Your task to perform on an android device: create a new album in the google photos Image 0: 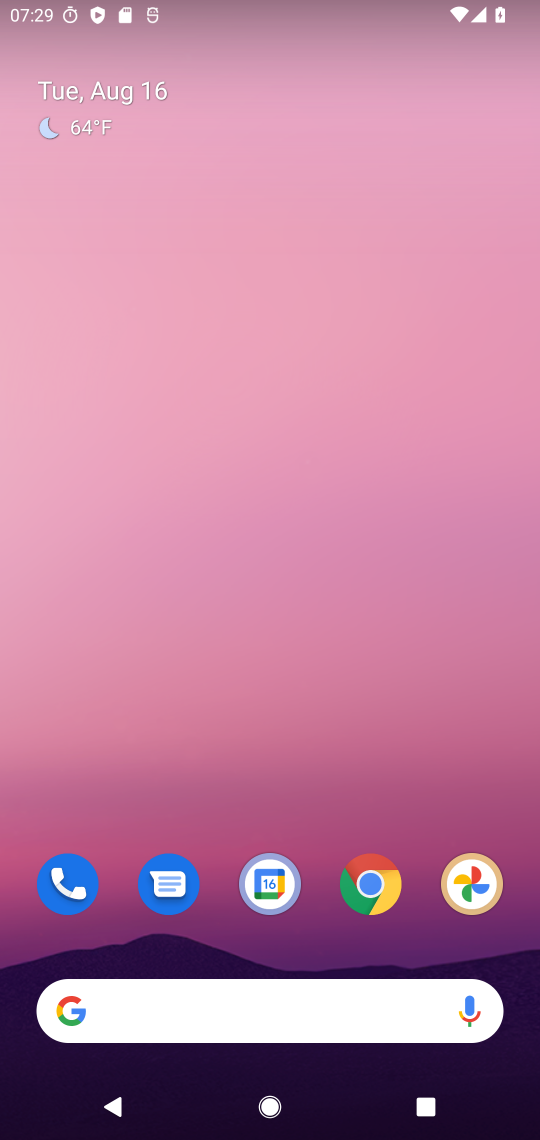
Step 0: press home button
Your task to perform on an android device: create a new album in the google photos Image 1: 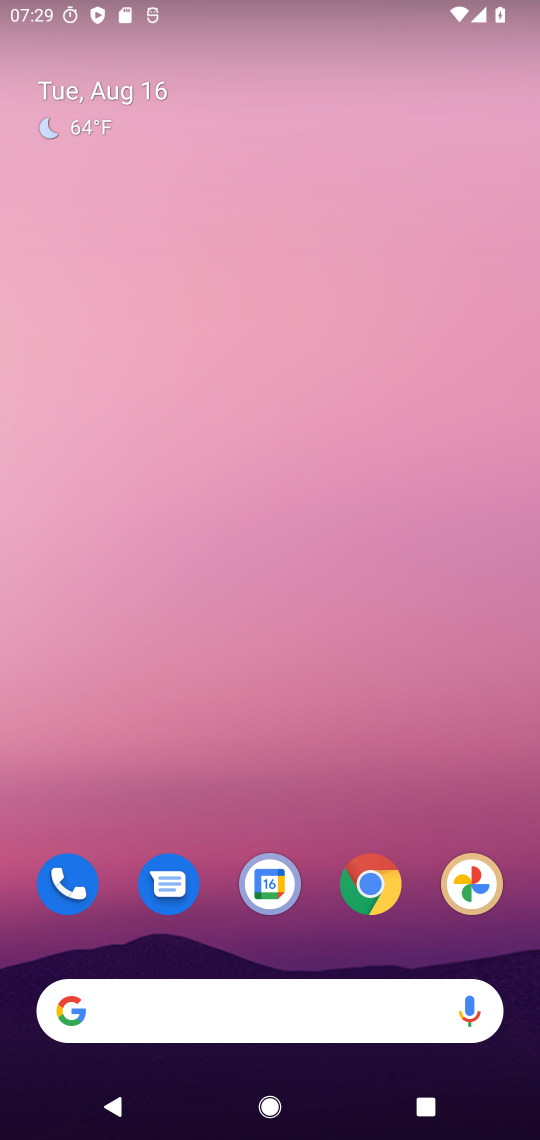
Step 1: drag from (391, 745) to (436, 0)
Your task to perform on an android device: create a new album in the google photos Image 2: 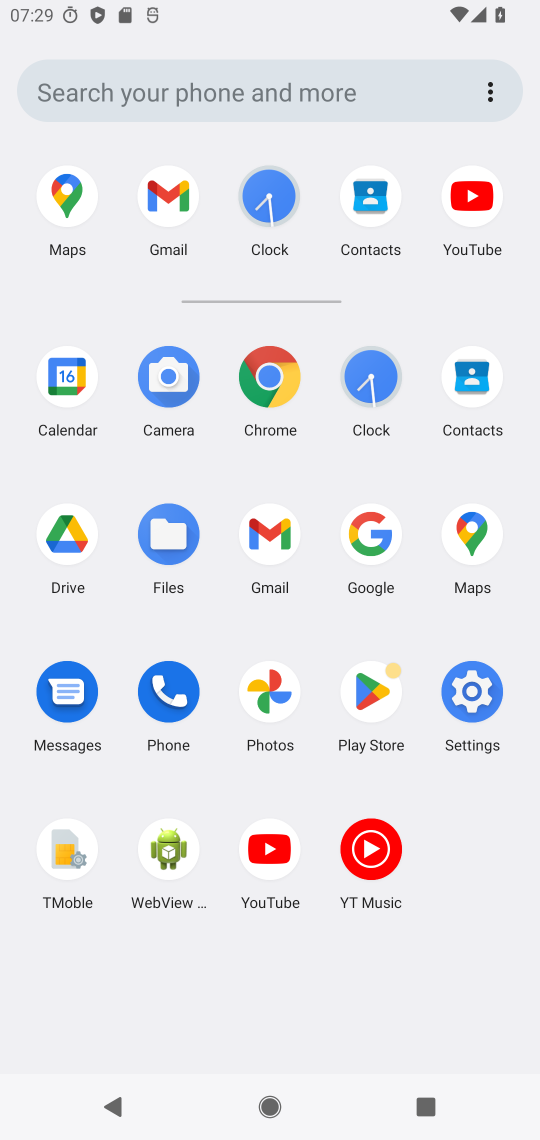
Step 2: click (266, 695)
Your task to perform on an android device: create a new album in the google photos Image 3: 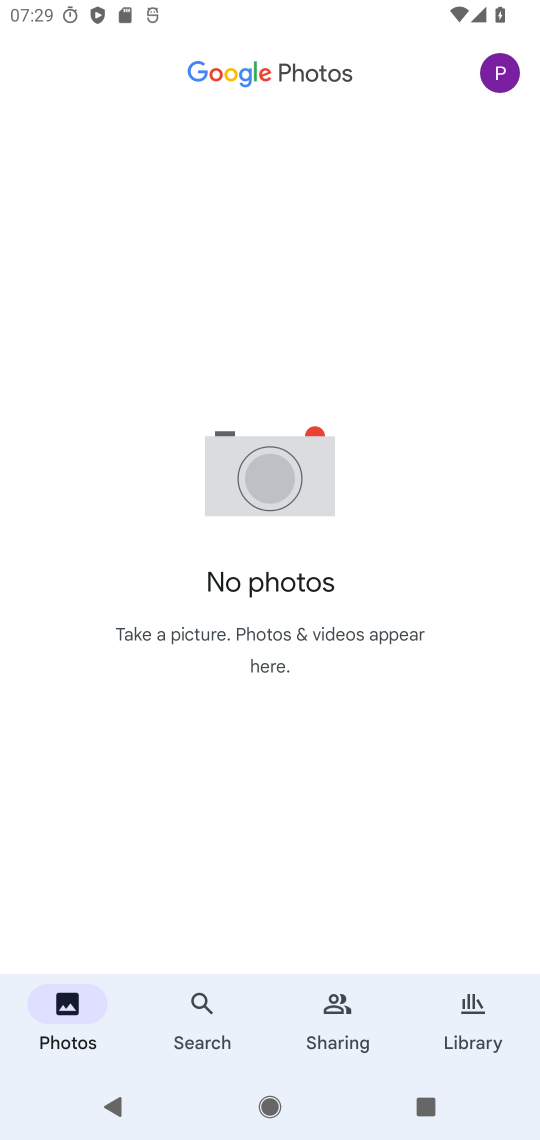
Step 3: click (471, 1029)
Your task to perform on an android device: create a new album in the google photos Image 4: 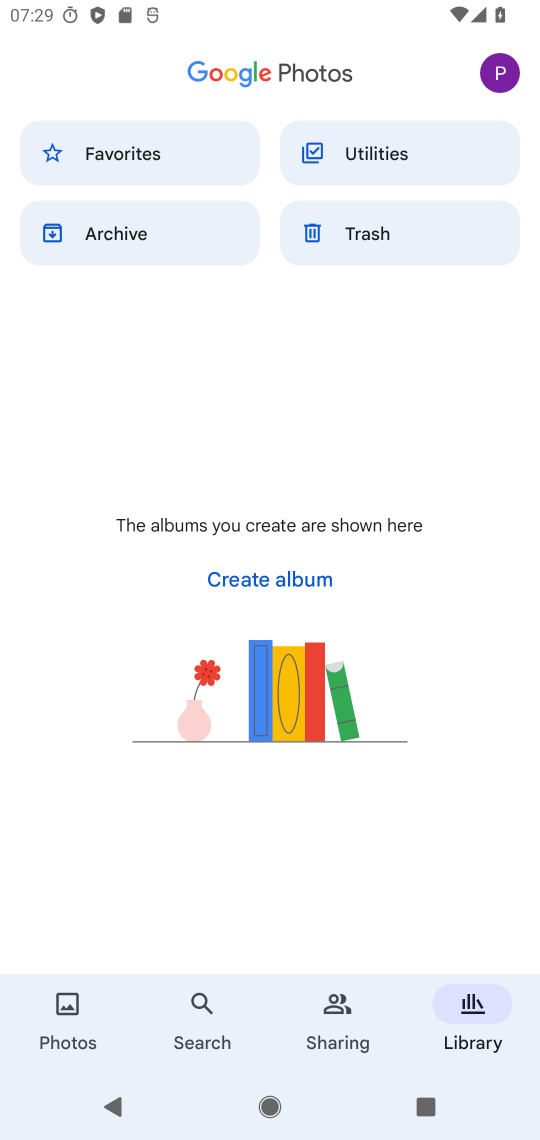
Step 4: click (261, 574)
Your task to perform on an android device: create a new album in the google photos Image 5: 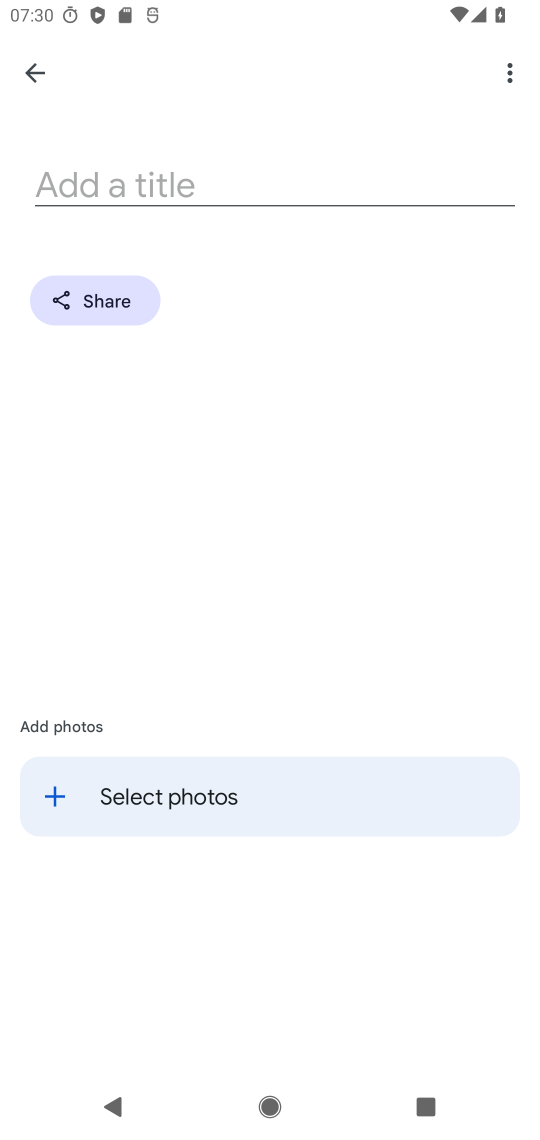
Step 5: type "wwww"
Your task to perform on an android device: create a new album in the google photos Image 6: 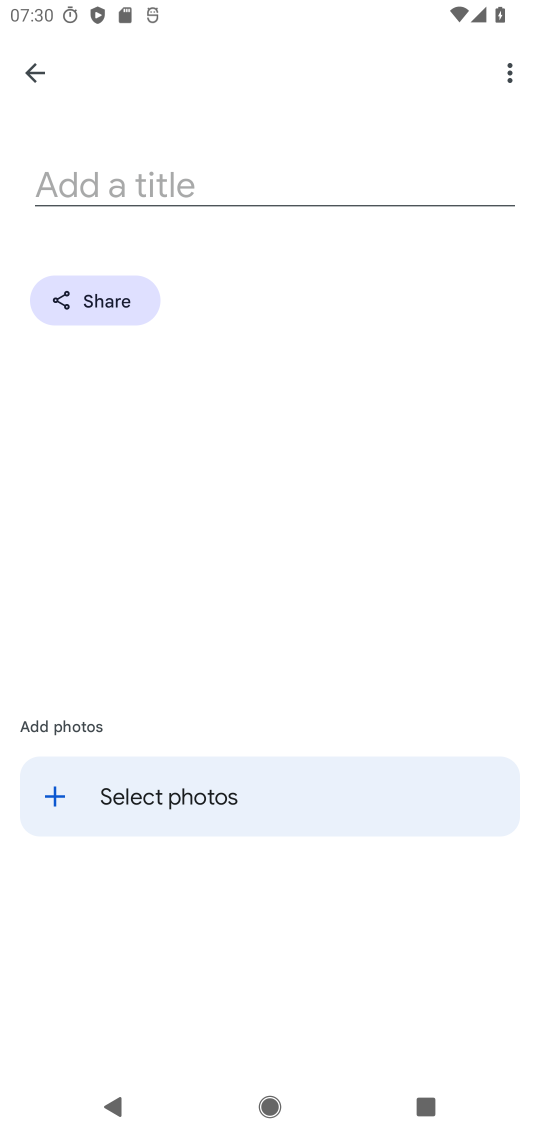
Step 6: click (194, 179)
Your task to perform on an android device: create a new album in the google photos Image 7: 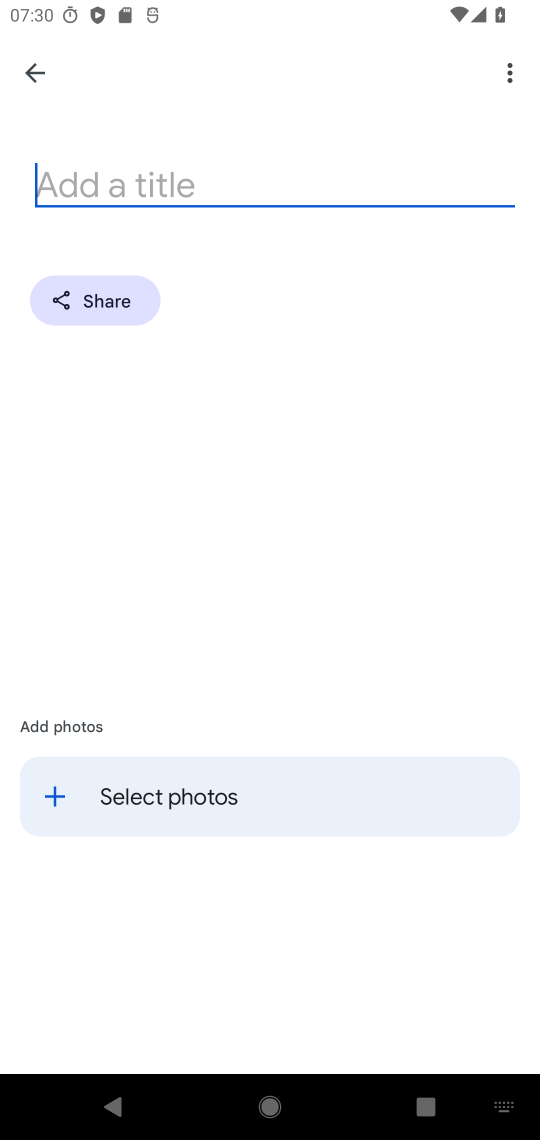
Step 7: click (122, 172)
Your task to perform on an android device: create a new album in the google photos Image 8: 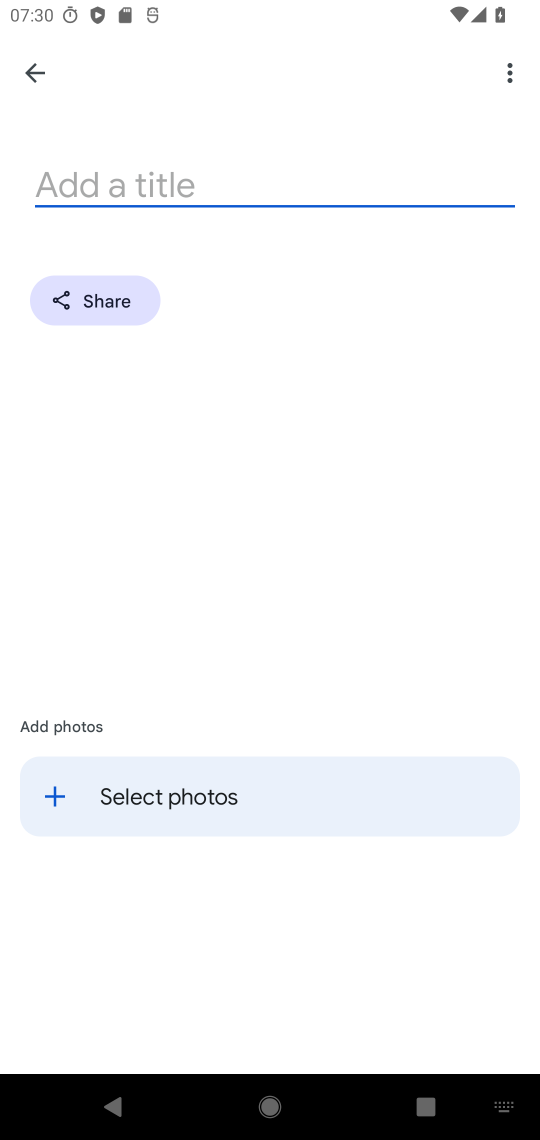
Step 8: type "wddww"
Your task to perform on an android device: create a new album in the google photos Image 9: 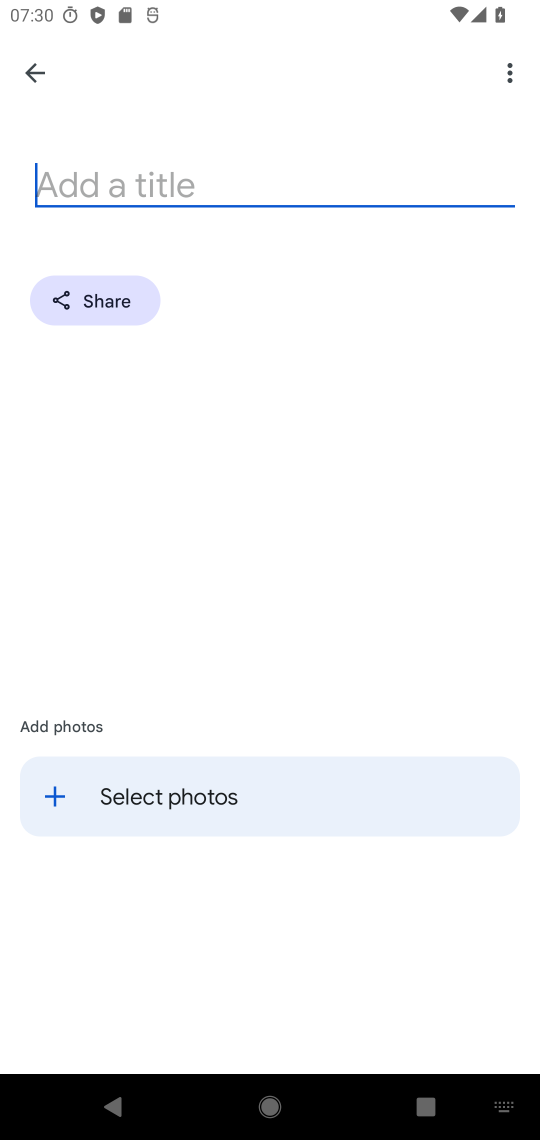
Step 9: click (154, 169)
Your task to perform on an android device: create a new album in the google photos Image 10: 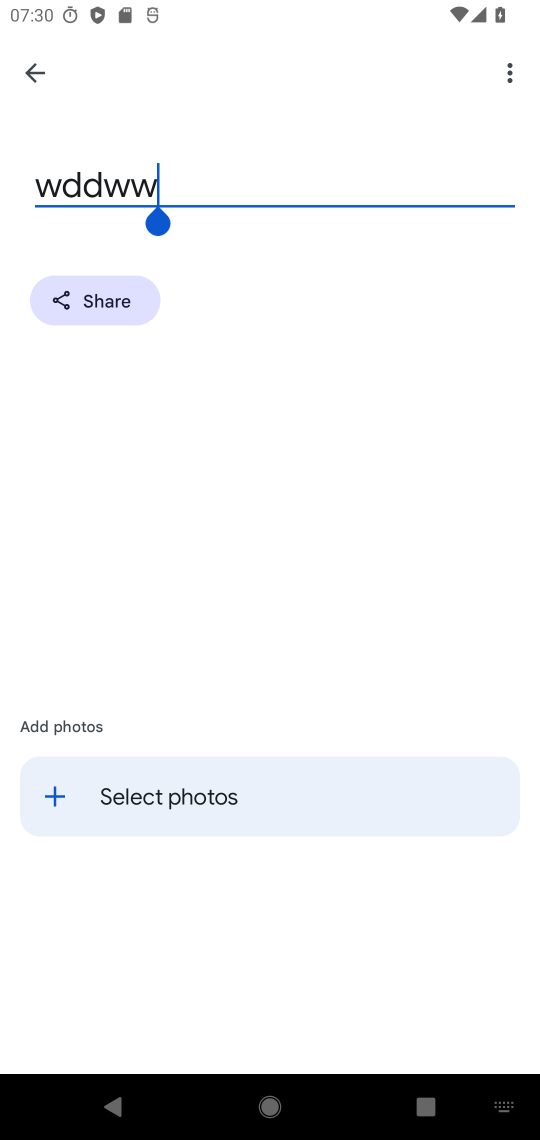
Step 10: click (134, 790)
Your task to perform on an android device: create a new album in the google photos Image 11: 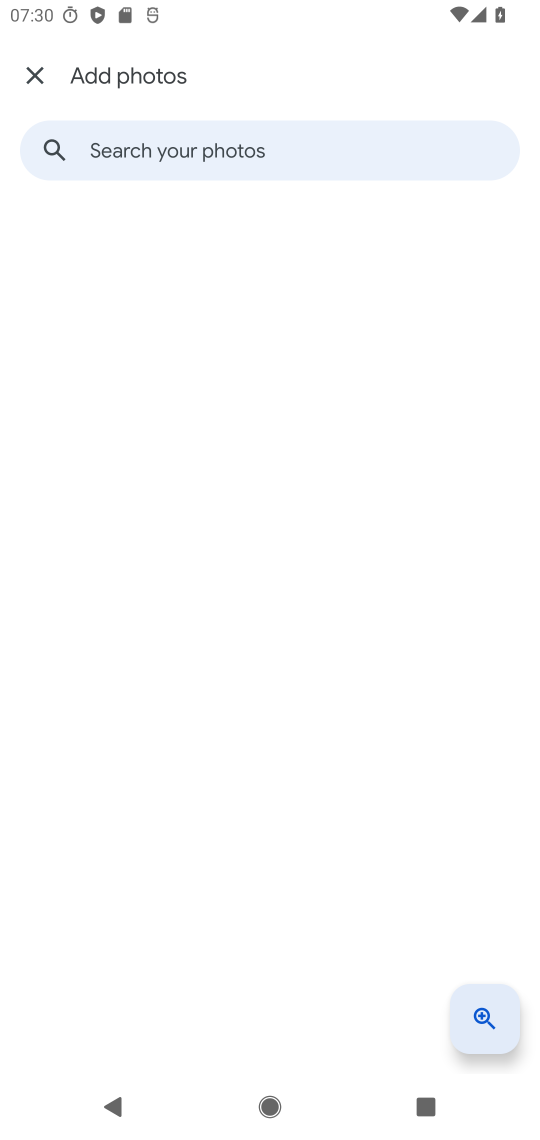
Step 11: click (28, 70)
Your task to perform on an android device: create a new album in the google photos Image 12: 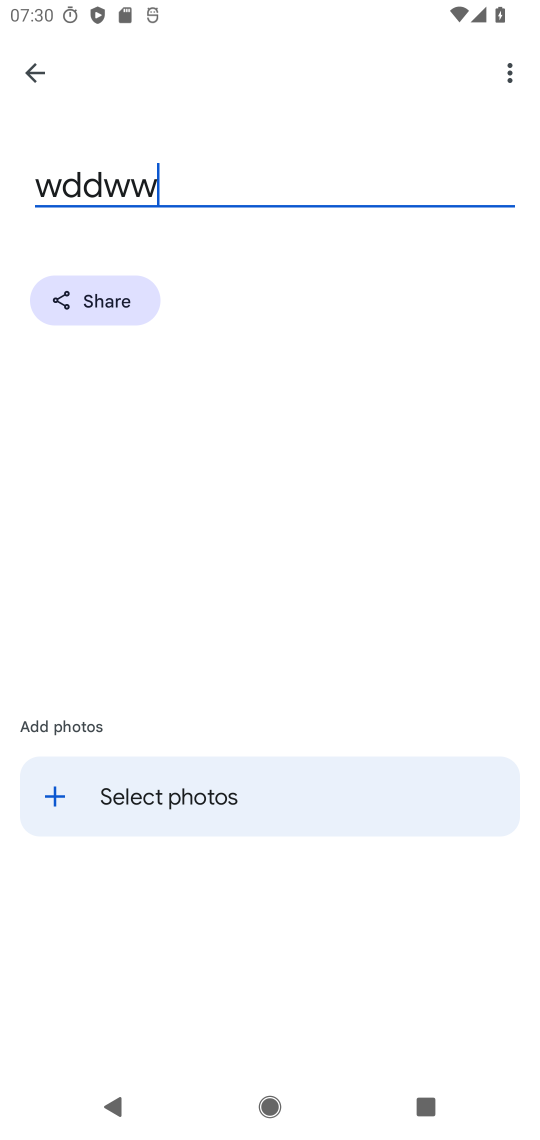
Step 12: click (518, 71)
Your task to perform on an android device: create a new album in the google photos Image 13: 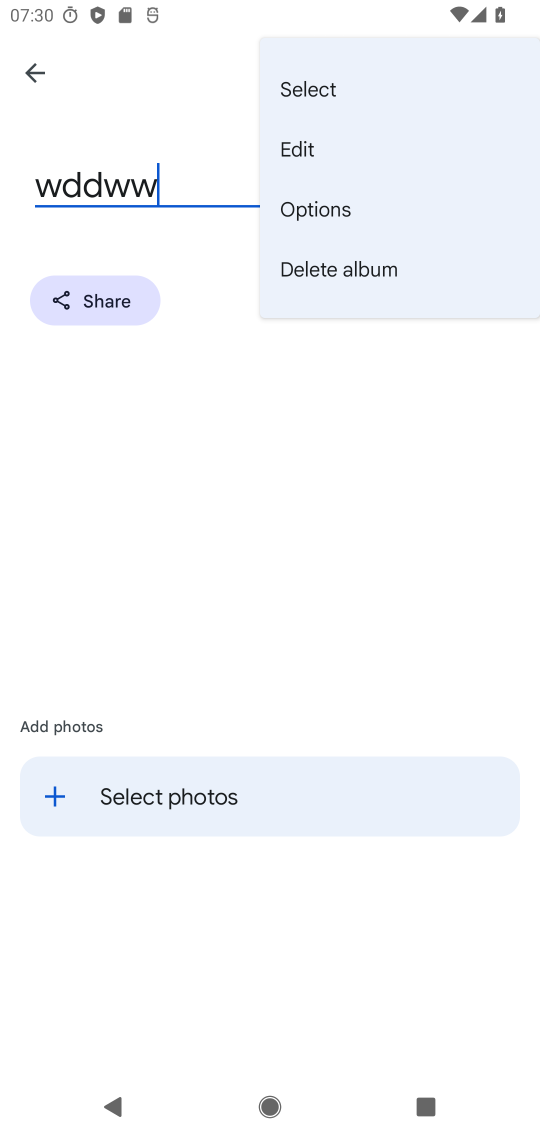
Step 13: click (361, 551)
Your task to perform on an android device: create a new album in the google photos Image 14: 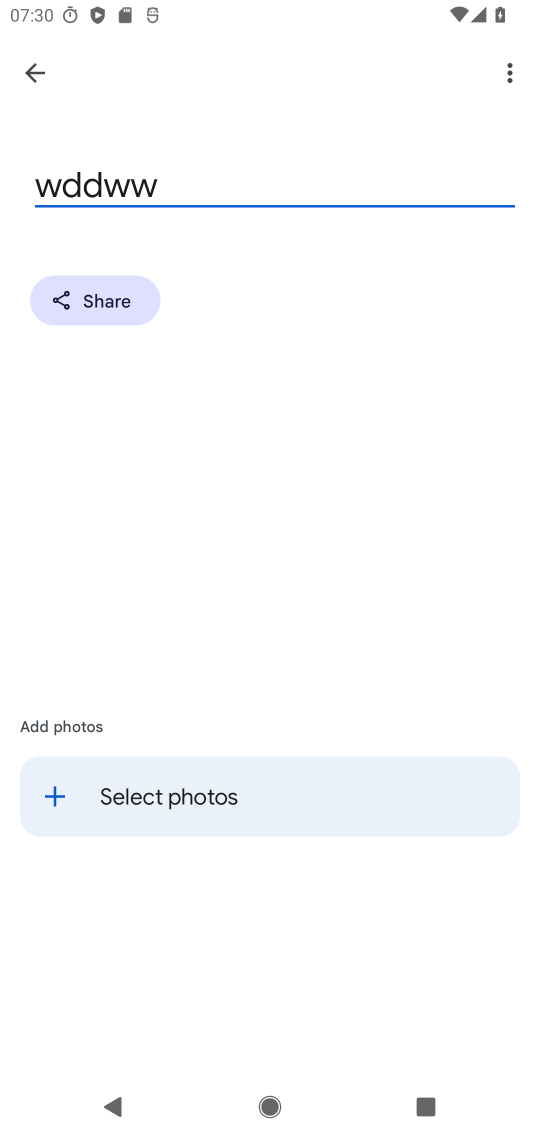
Step 14: drag from (334, 973) to (344, 198)
Your task to perform on an android device: create a new album in the google photos Image 15: 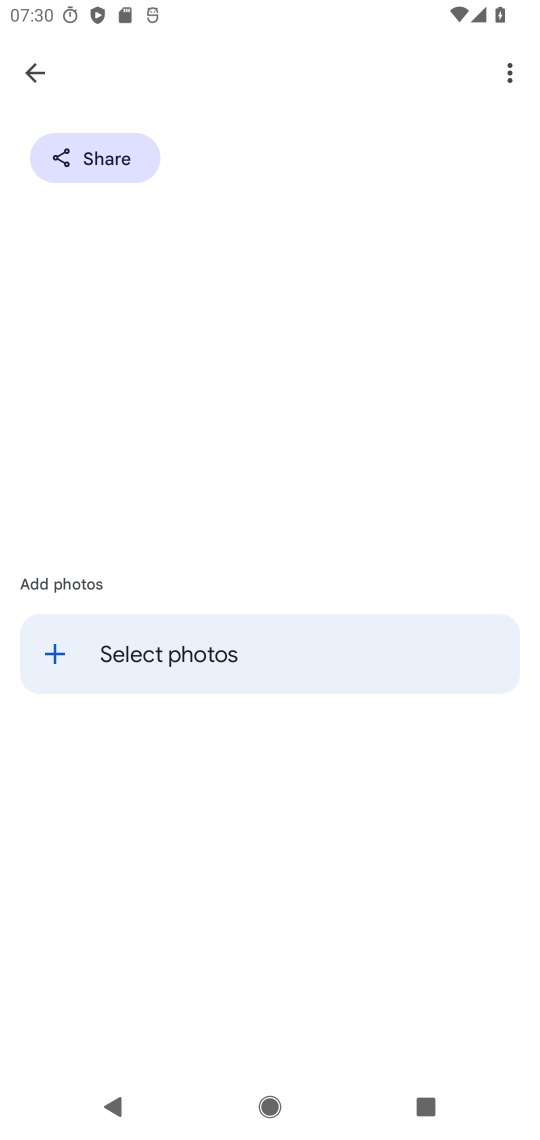
Step 15: drag from (352, 888) to (368, 166)
Your task to perform on an android device: create a new album in the google photos Image 16: 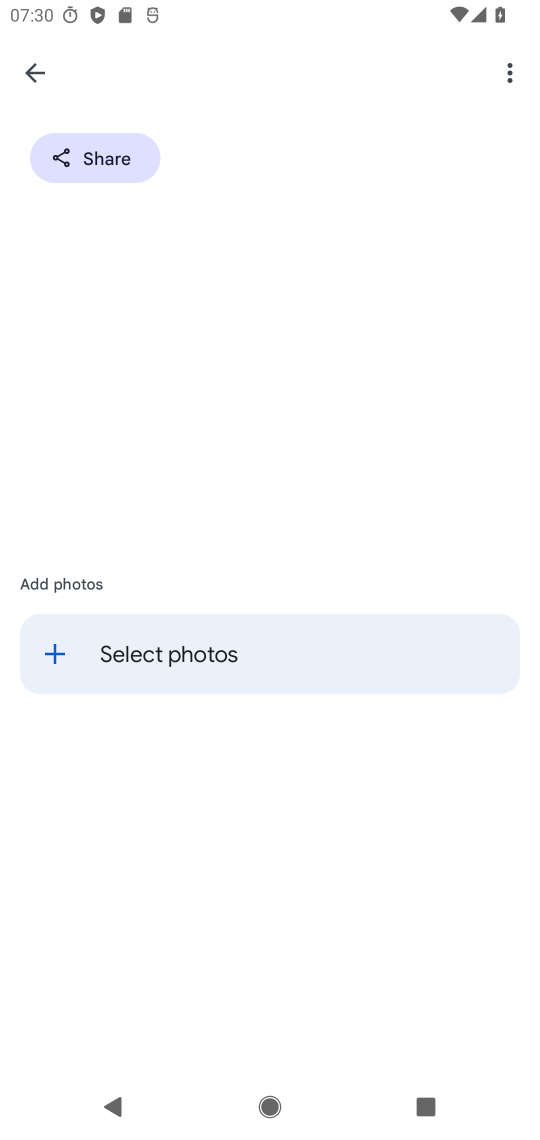
Step 16: click (47, 631)
Your task to perform on an android device: create a new album in the google photos Image 17: 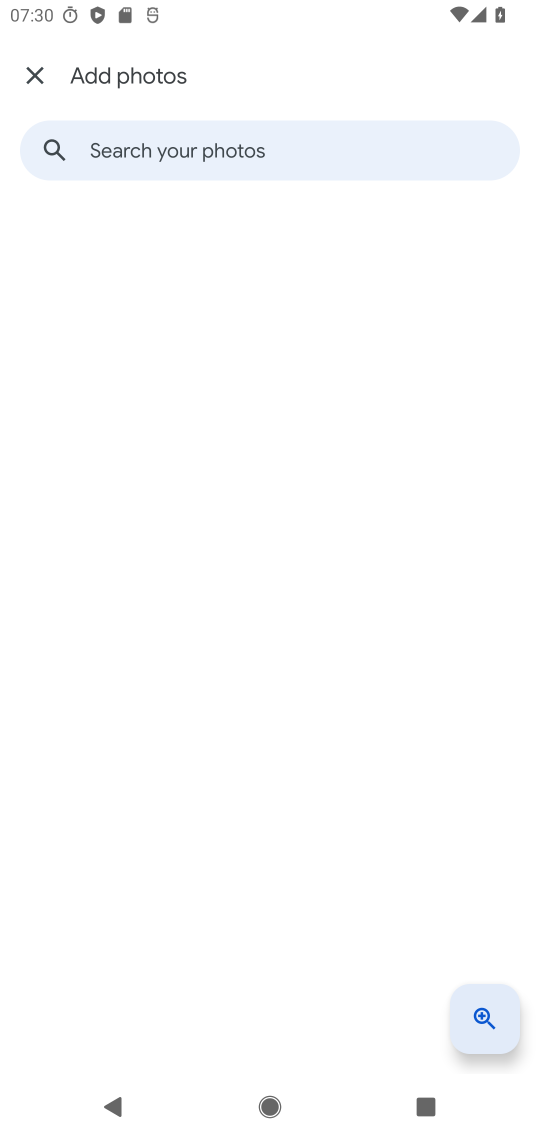
Step 17: click (241, 147)
Your task to perform on an android device: create a new album in the google photos Image 18: 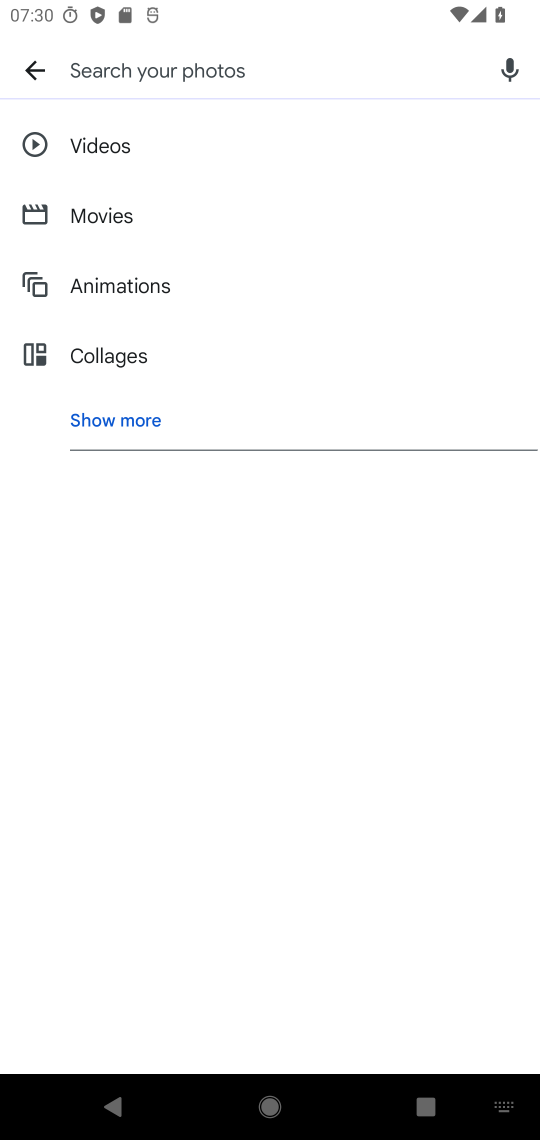
Step 18: click (123, 415)
Your task to perform on an android device: create a new album in the google photos Image 19: 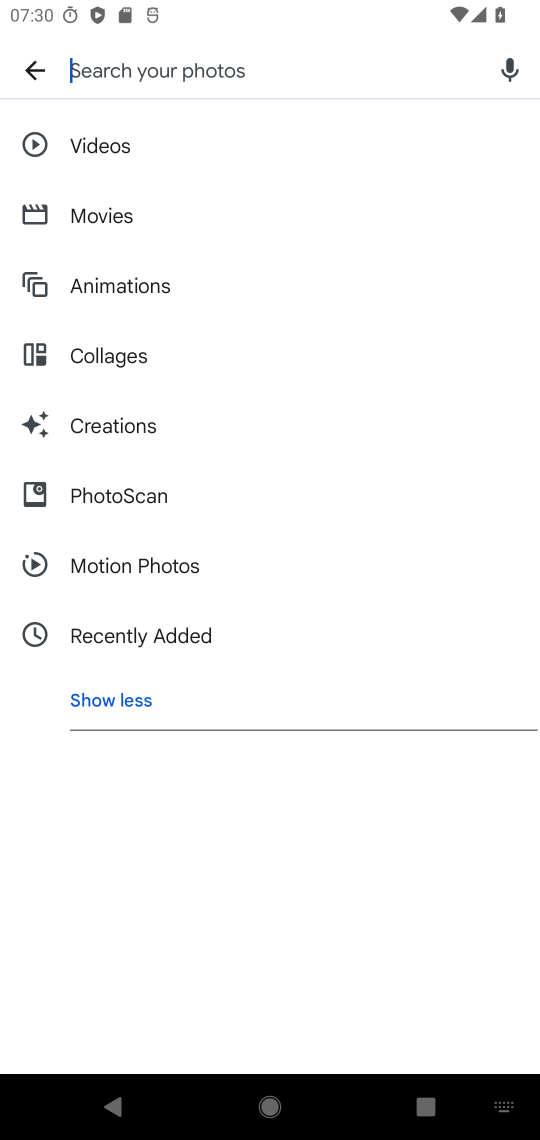
Step 19: click (135, 564)
Your task to perform on an android device: create a new album in the google photos Image 20: 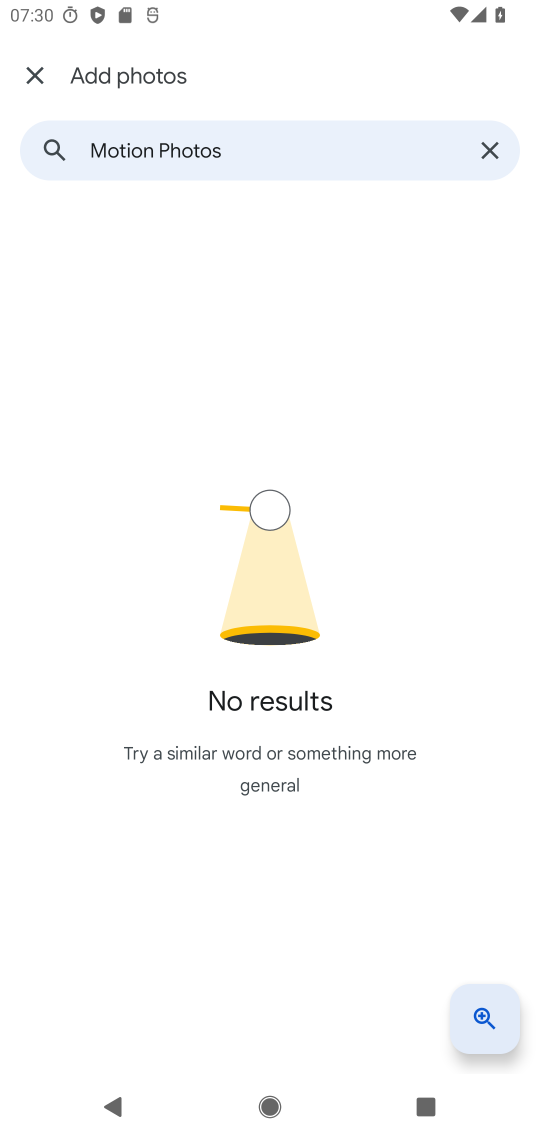
Step 20: click (244, 510)
Your task to perform on an android device: create a new album in the google photos Image 21: 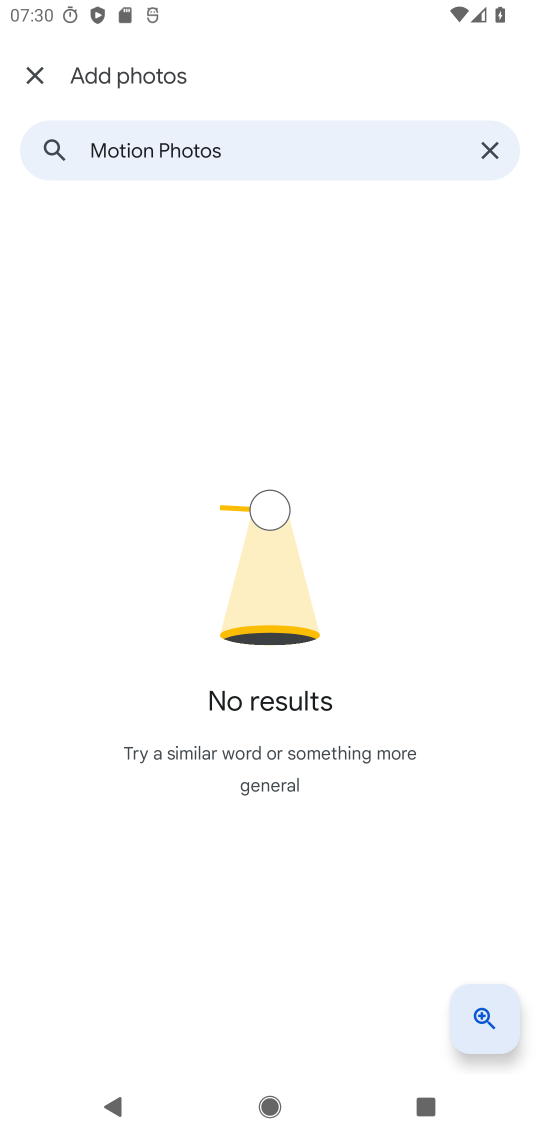
Step 21: task complete